Your task to perform on an android device: Open Youtube and go to the subscriptions tab Image 0: 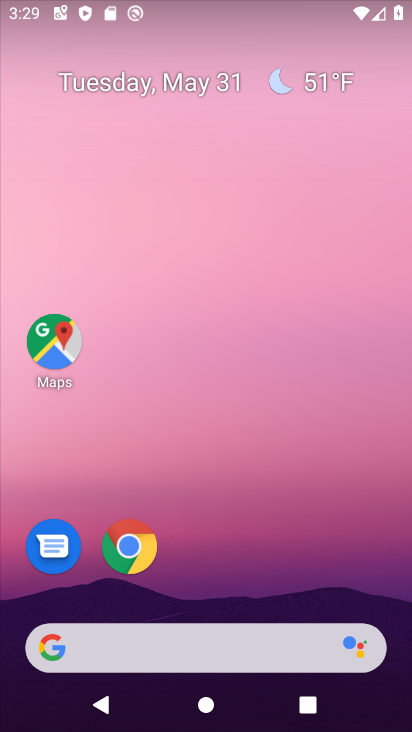
Step 0: drag from (216, 577) to (236, 226)
Your task to perform on an android device: Open Youtube and go to the subscriptions tab Image 1: 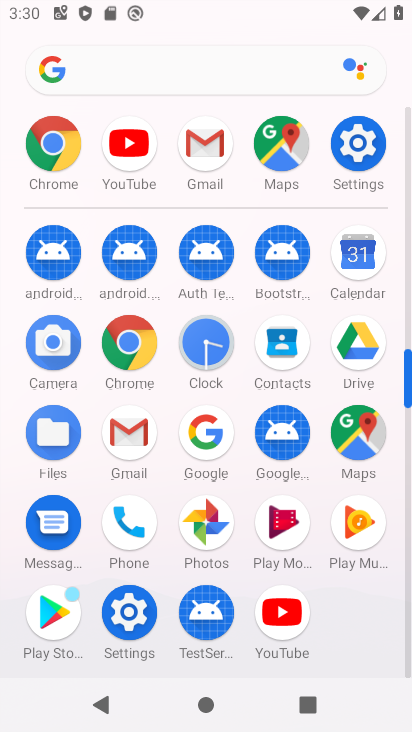
Step 1: click (271, 617)
Your task to perform on an android device: Open Youtube and go to the subscriptions tab Image 2: 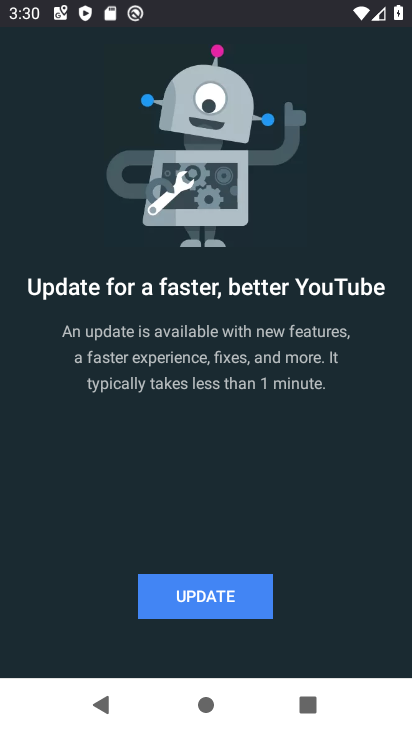
Step 2: click (224, 597)
Your task to perform on an android device: Open Youtube and go to the subscriptions tab Image 3: 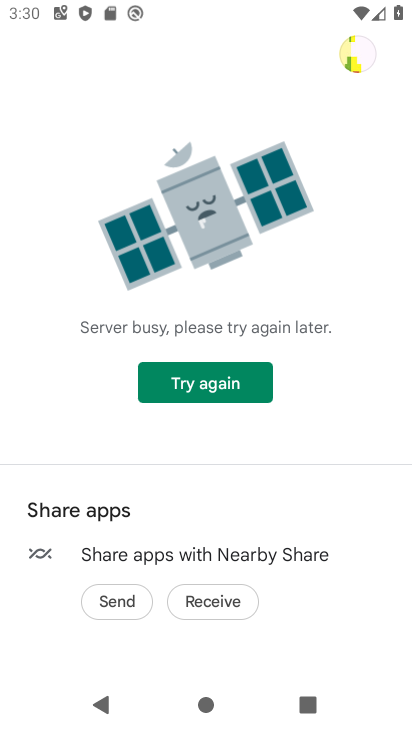
Step 3: click (203, 383)
Your task to perform on an android device: Open Youtube and go to the subscriptions tab Image 4: 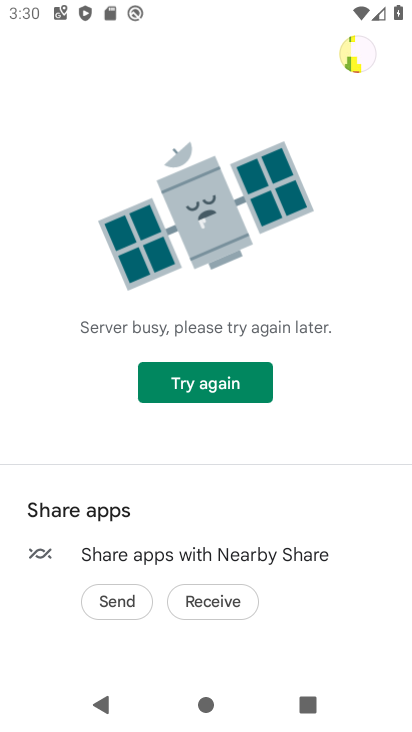
Step 4: task complete